Your task to perform on an android device: Open the map Image 0: 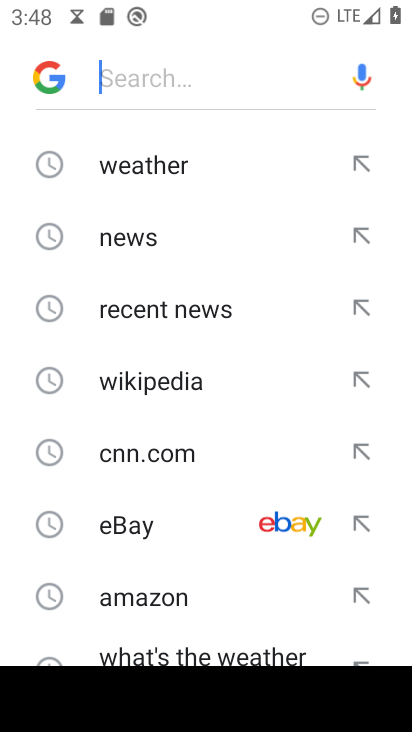
Step 0: press home button
Your task to perform on an android device: Open the map Image 1: 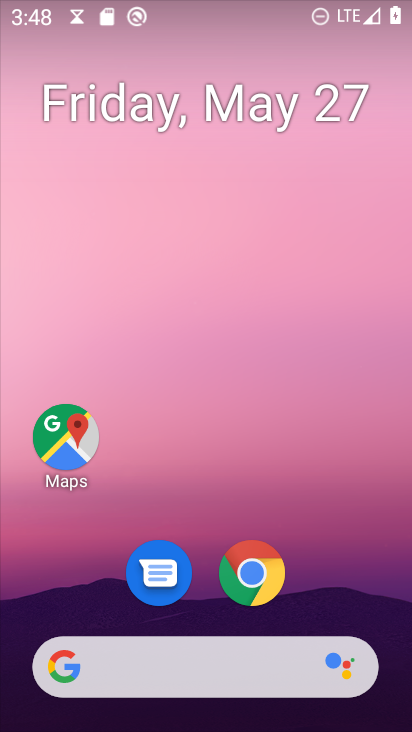
Step 1: click (58, 441)
Your task to perform on an android device: Open the map Image 2: 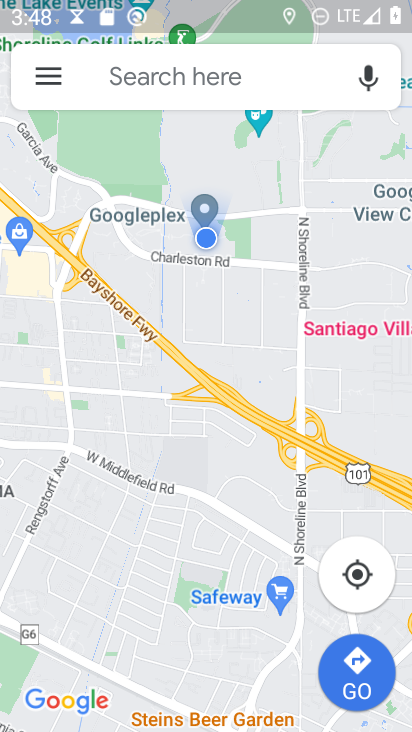
Step 2: task complete